Your task to perform on an android device: open chrome privacy settings Image 0: 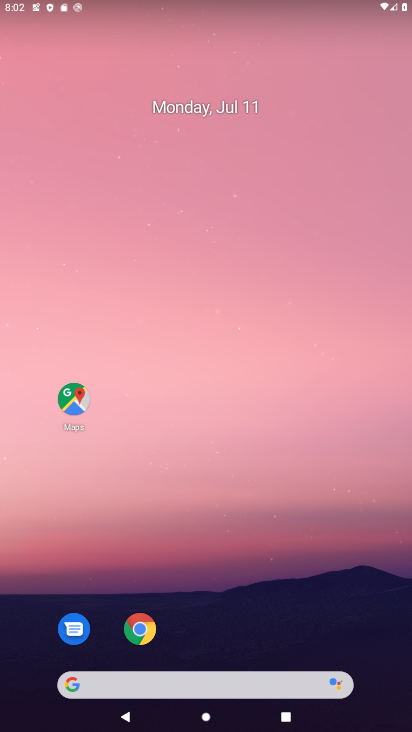
Step 0: click (144, 623)
Your task to perform on an android device: open chrome privacy settings Image 1: 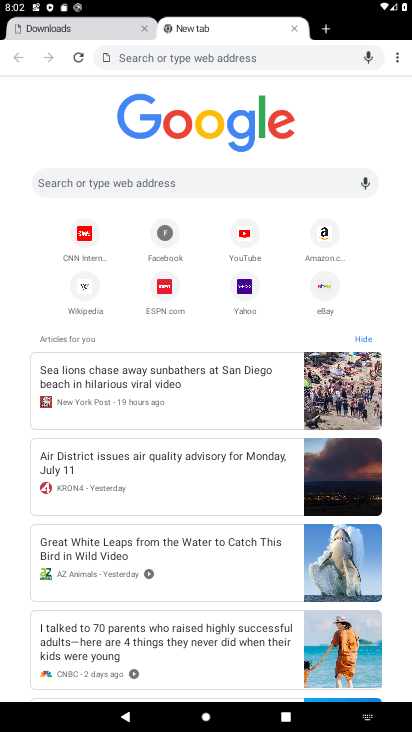
Step 1: click (393, 55)
Your task to perform on an android device: open chrome privacy settings Image 2: 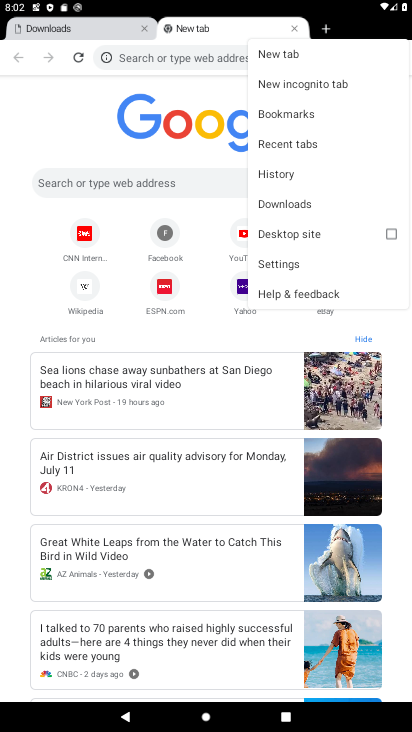
Step 2: click (297, 264)
Your task to perform on an android device: open chrome privacy settings Image 3: 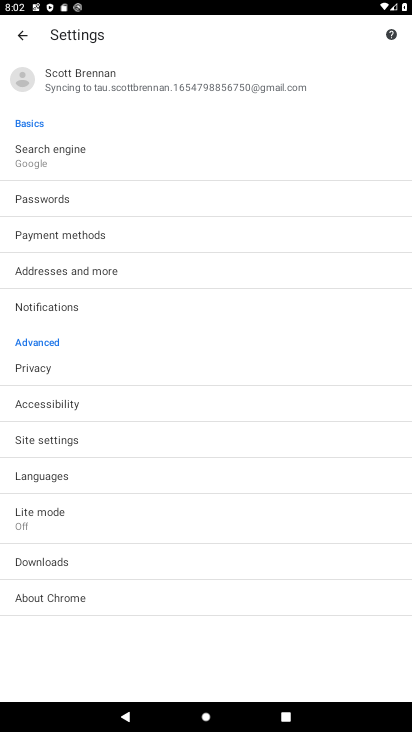
Step 3: click (31, 371)
Your task to perform on an android device: open chrome privacy settings Image 4: 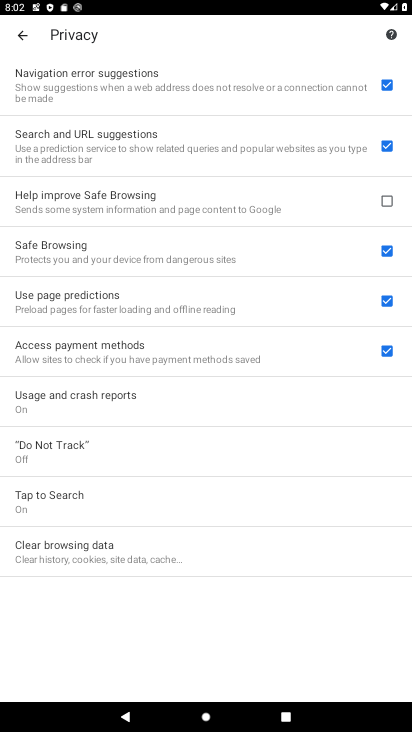
Step 4: task complete